Your task to perform on an android device: see sites visited before in the chrome app Image 0: 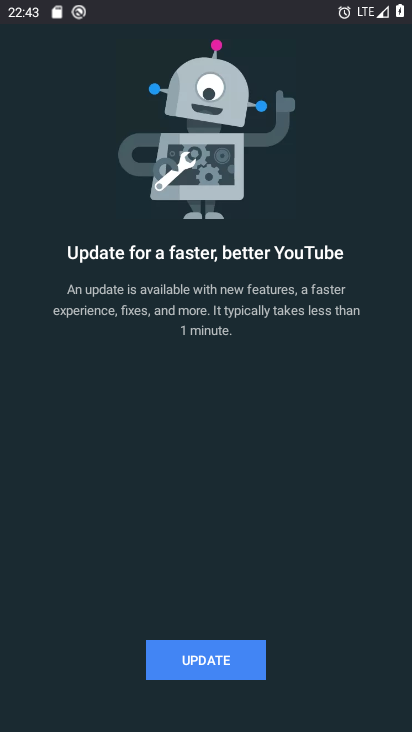
Step 0: press home button
Your task to perform on an android device: see sites visited before in the chrome app Image 1: 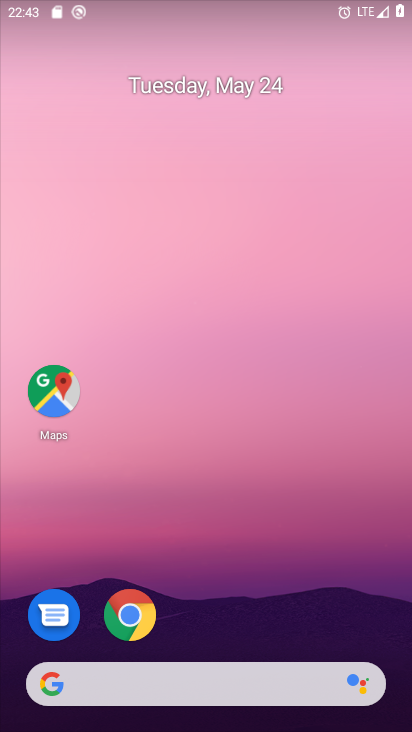
Step 1: drag from (241, 578) to (277, 217)
Your task to perform on an android device: see sites visited before in the chrome app Image 2: 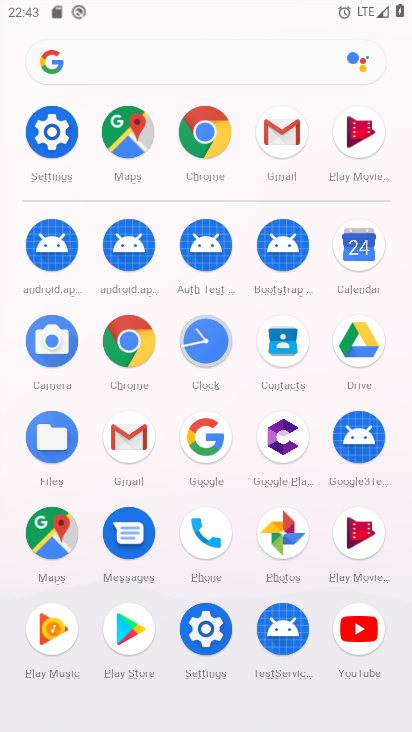
Step 2: click (122, 335)
Your task to perform on an android device: see sites visited before in the chrome app Image 3: 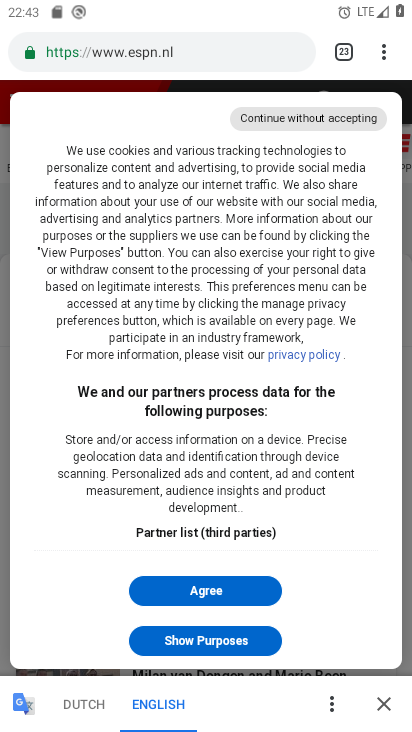
Step 3: click (377, 56)
Your task to perform on an android device: see sites visited before in the chrome app Image 4: 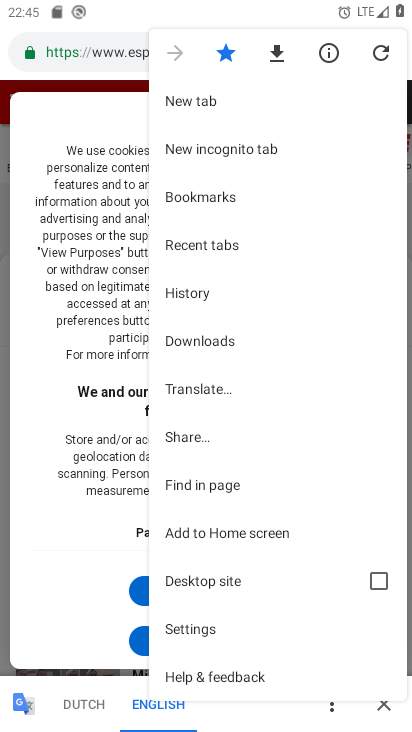
Step 4: click (204, 299)
Your task to perform on an android device: see sites visited before in the chrome app Image 5: 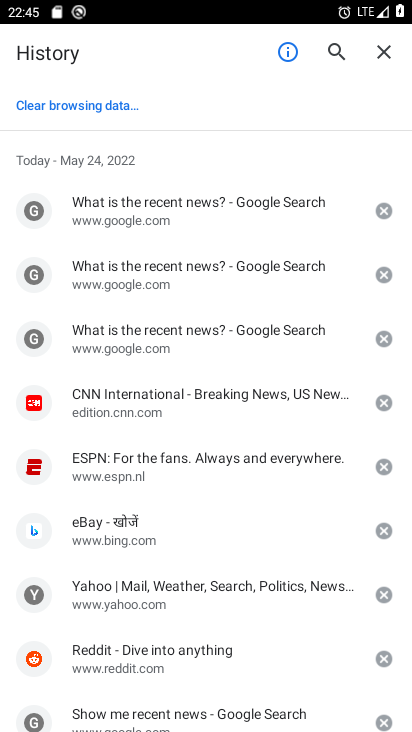
Step 5: task complete